Your task to perform on an android device: Open Wikipedia Image 0: 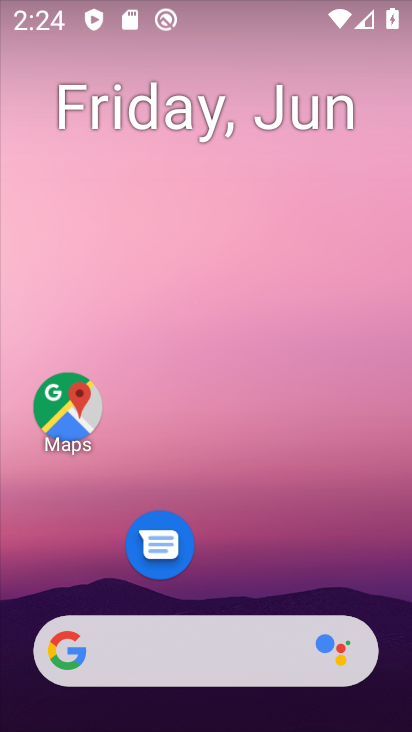
Step 0: drag from (211, 597) to (255, 35)
Your task to perform on an android device: Open Wikipedia Image 1: 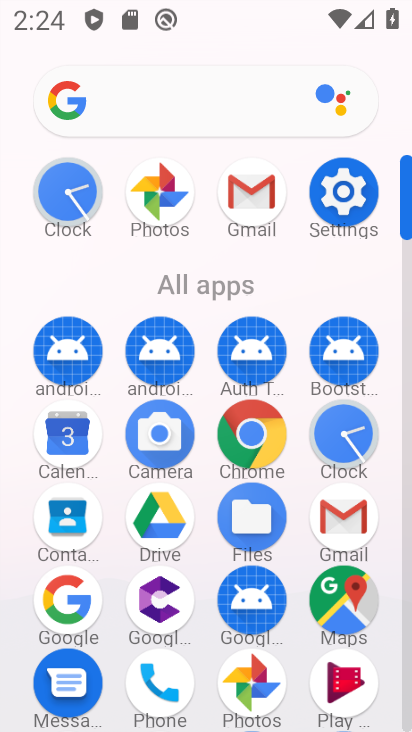
Step 1: click (263, 445)
Your task to perform on an android device: Open Wikipedia Image 2: 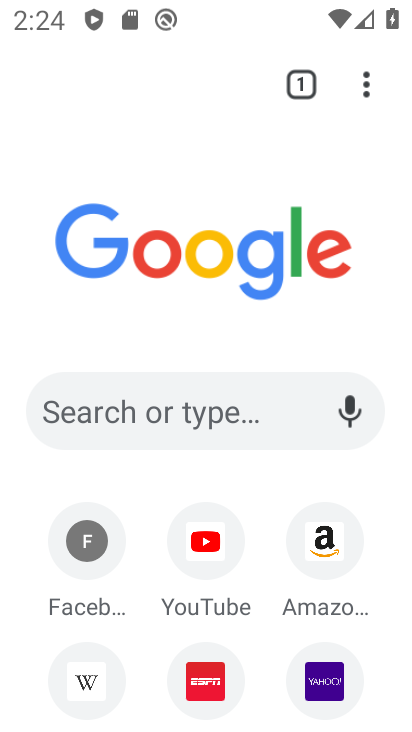
Step 2: click (97, 683)
Your task to perform on an android device: Open Wikipedia Image 3: 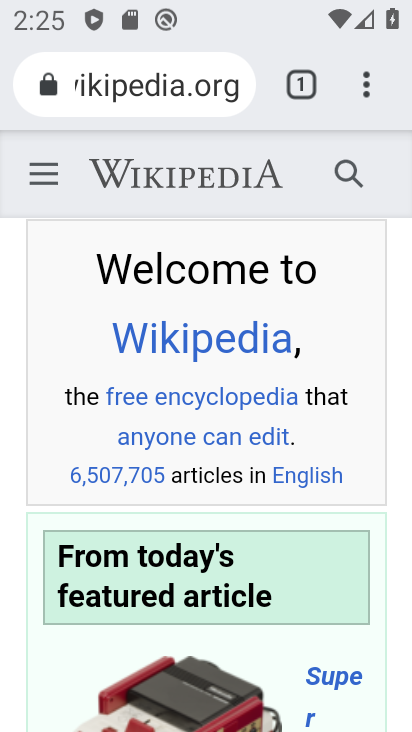
Step 3: task complete